Your task to perform on an android device: turn off location history Image 0: 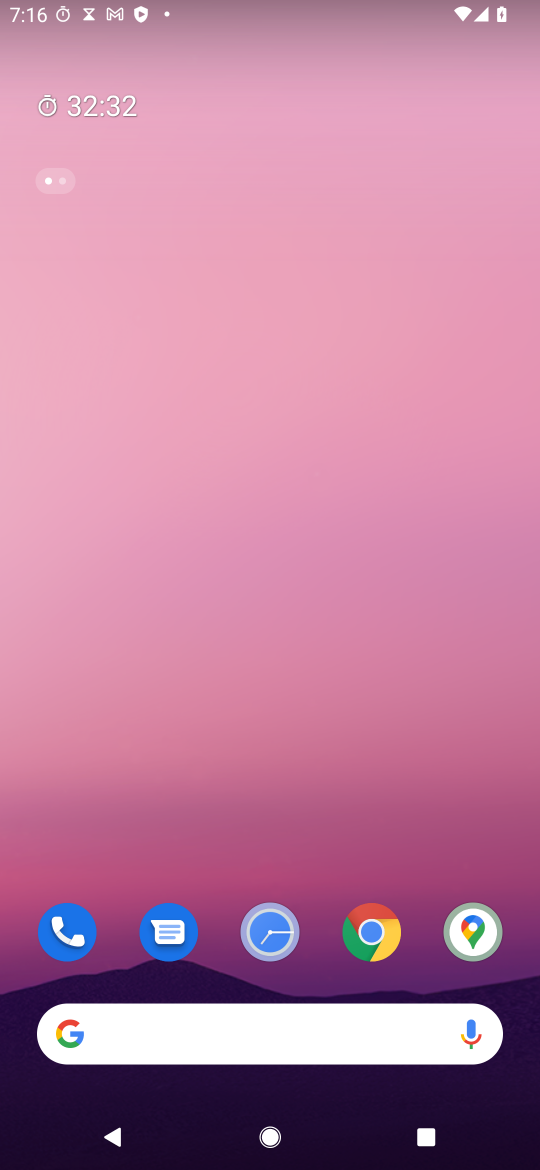
Step 0: drag from (316, 701) to (315, 25)
Your task to perform on an android device: turn off location history Image 1: 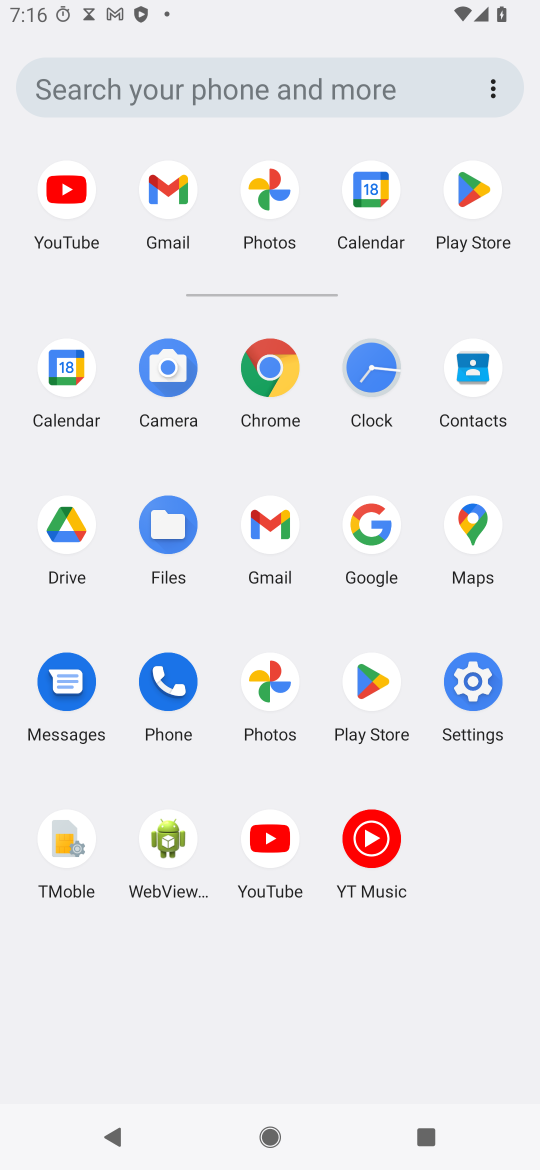
Step 1: click (464, 527)
Your task to perform on an android device: turn off location history Image 2: 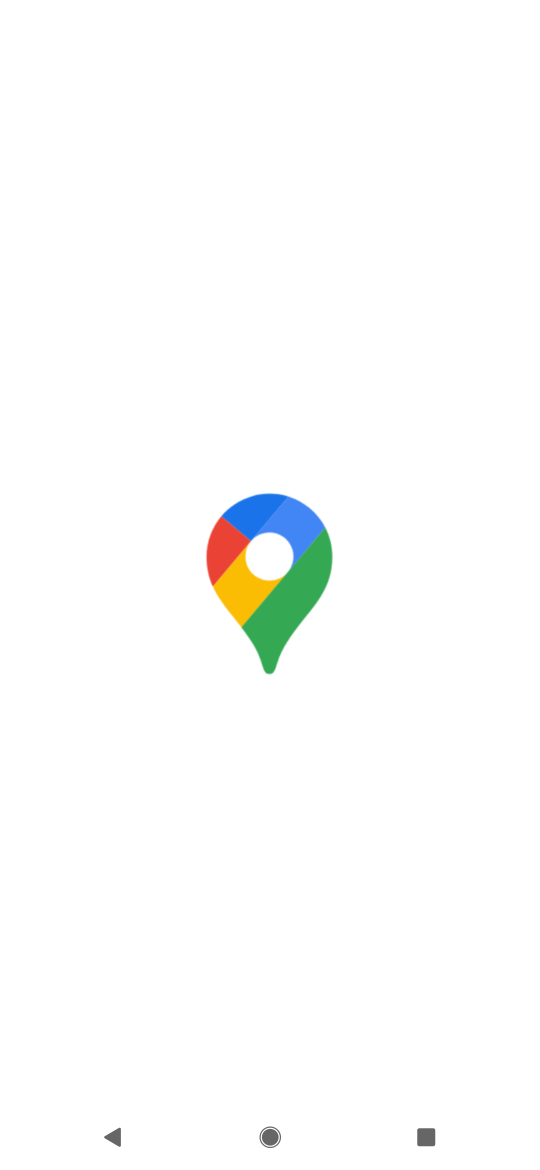
Step 2: task complete